Your task to perform on an android device: turn off priority inbox in the gmail app Image 0: 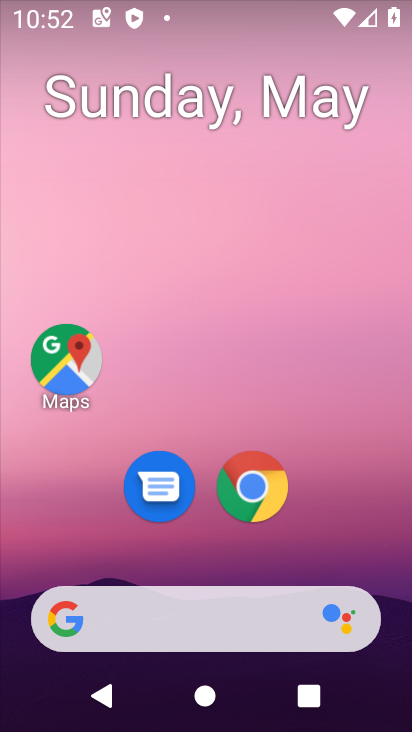
Step 0: drag from (298, 585) to (264, 10)
Your task to perform on an android device: turn off priority inbox in the gmail app Image 1: 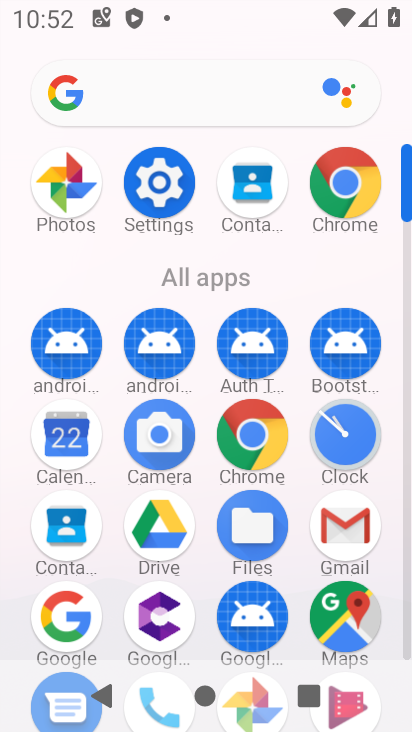
Step 1: click (343, 524)
Your task to perform on an android device: turn off priority inbox in the gmail app Image 2: 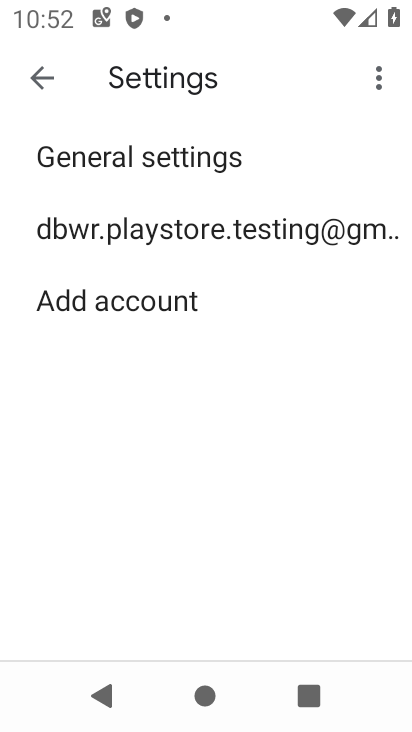
Step 2: click (144, 221)
Your task to perform on an android device: turn off priority inbox in the gmail app Image 3: 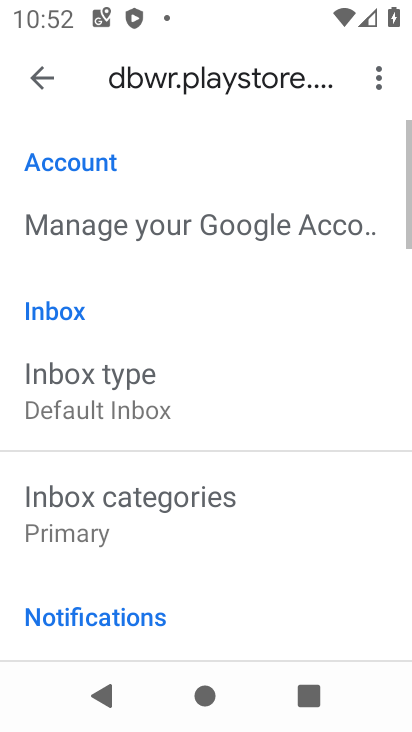
Step 3: click (87, 401)
Your task to perform on an android device: turn off priority inbox in the gmail app Image 4: 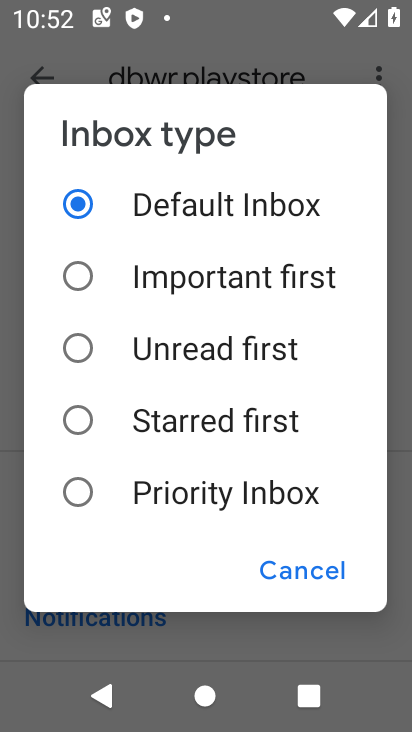
Step 4: task complete